Your task to perform on an android device: Open Chrome and go to settings Image 0: 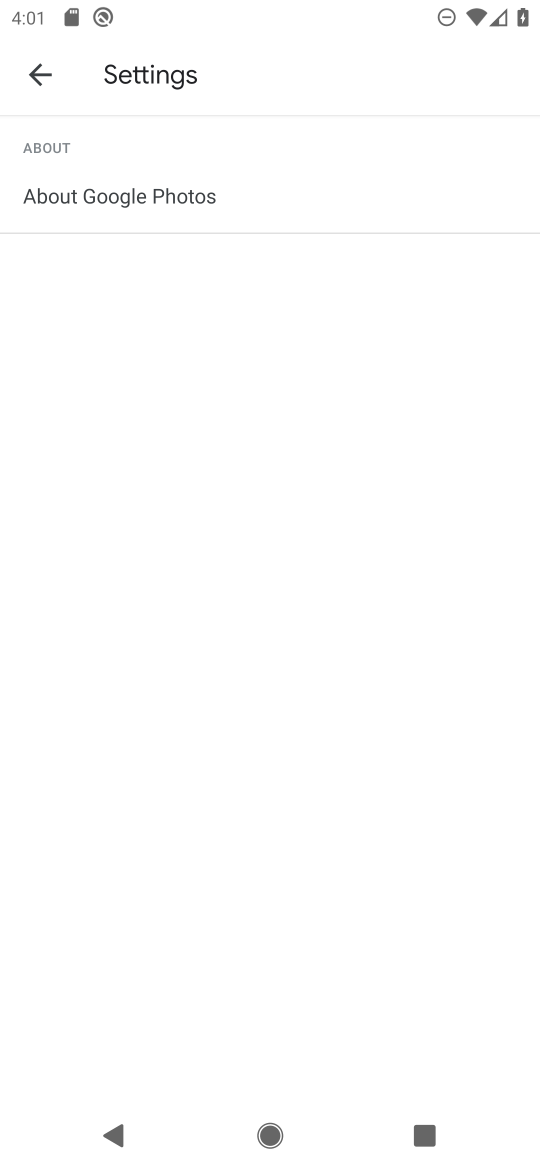
Step 0: press back button
Your task to perform on an android device: Open Chrome and go to settings Image 1: 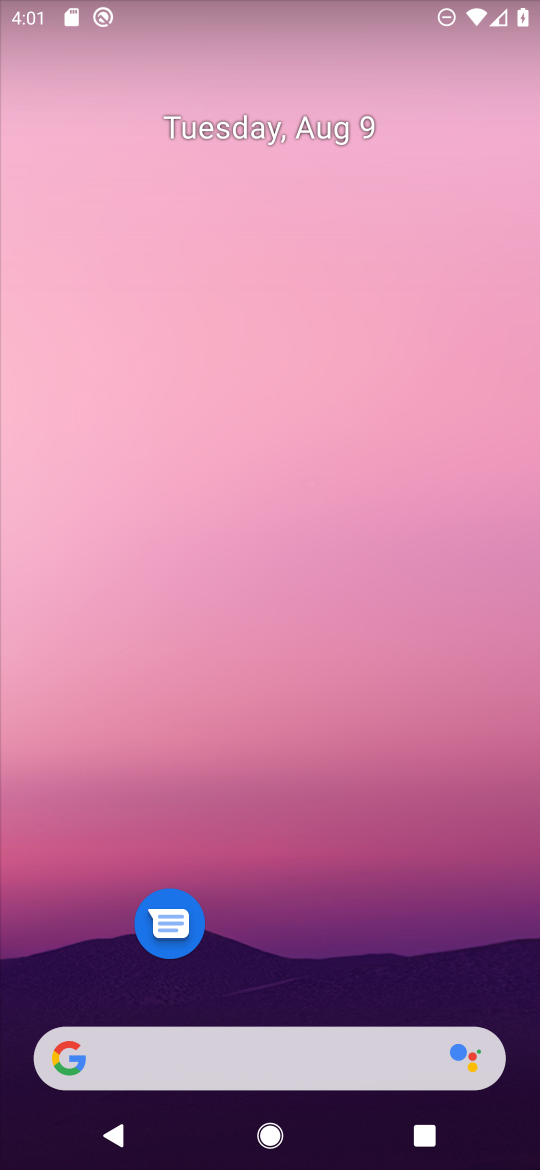
Step 1: drag from (323, 694) to (409, 100)
Your task to perform on an android device: Open Chrome and go to settings Image 2: 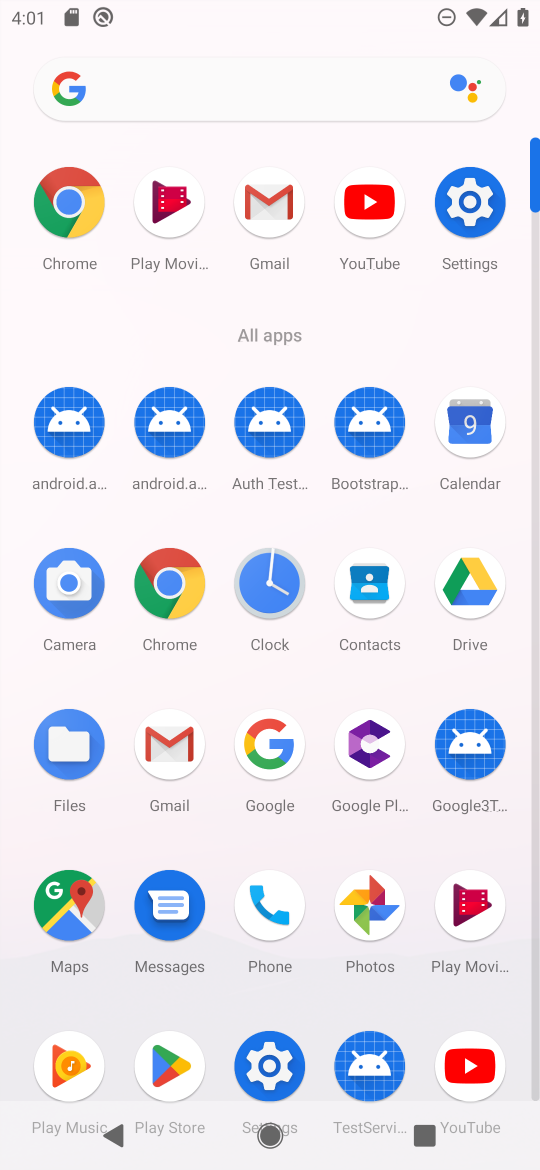
Step 2: click (178, 600)
Your task to perform on an android device: Open Chrome and go to settings Image 3: 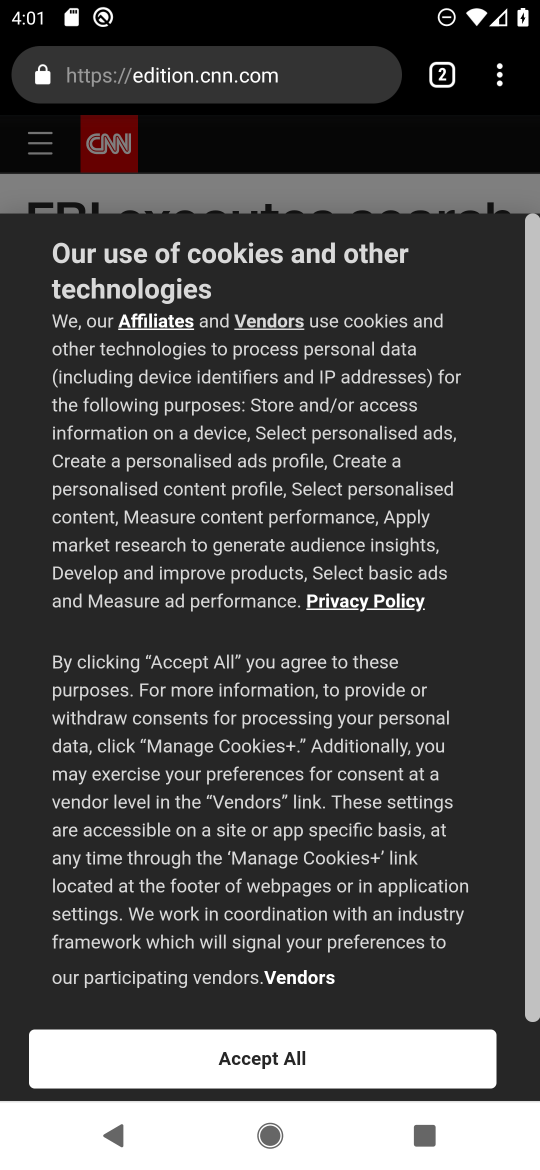
Step 3: task complete